Your task to perform on an android device: Search for seafood restaurants on Google Maps Image 0: 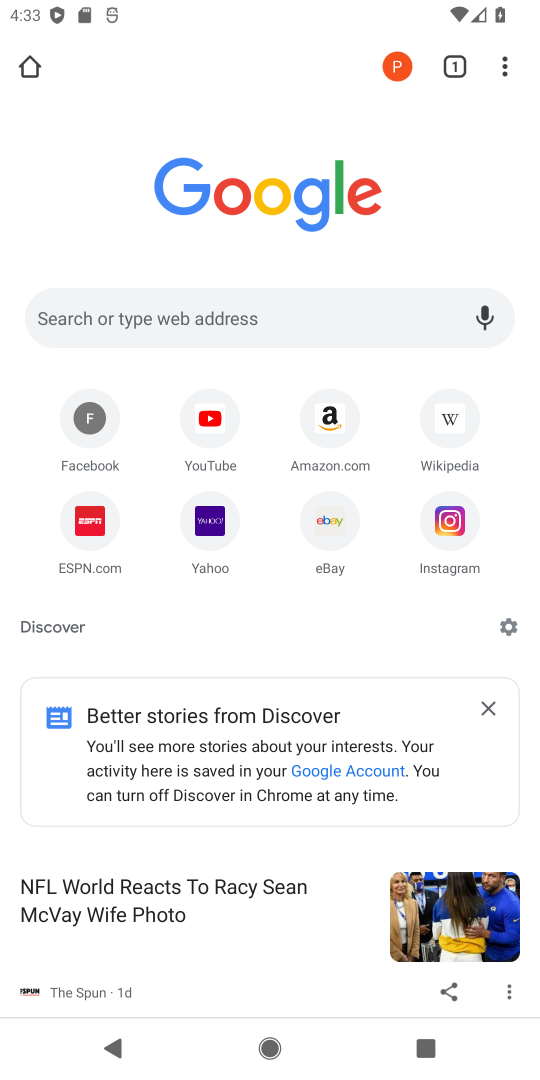
Step 0: press home button
Your task to perform on an android device: Search for seafood restaurants on Google Maps Image 1: 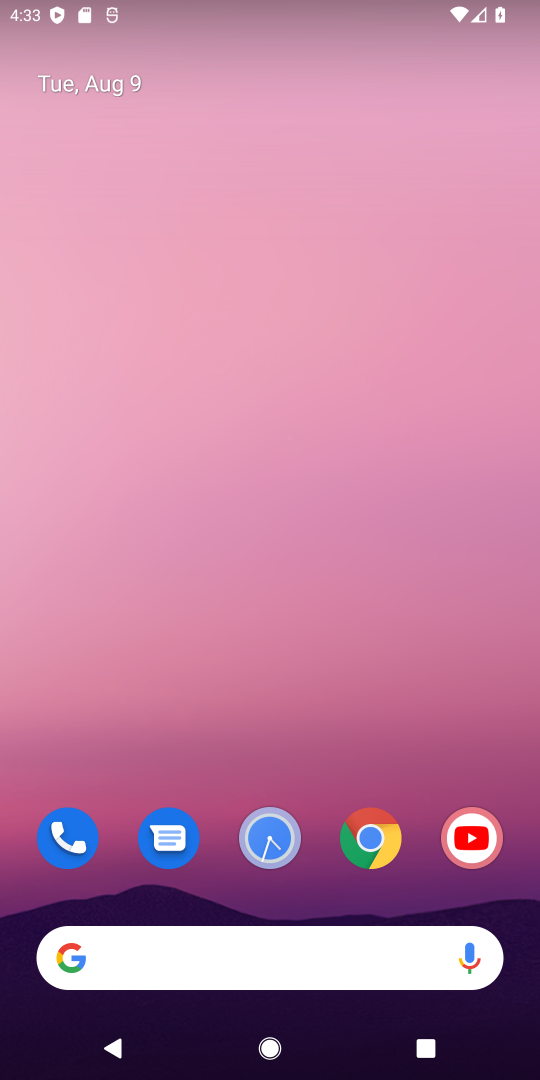
Step 1: drag from (300, 708) to (395, 5)
Your task to perform on an android device: Search for seafood restaurants on Google Maps Image 2: 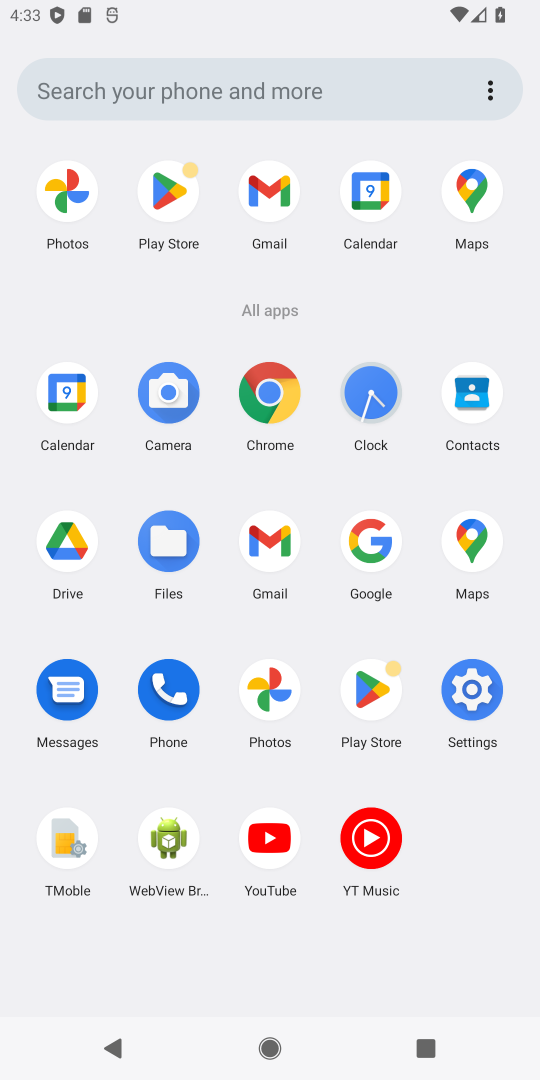
Step 2: click (476, 187)
Your task to perform on an android device: Search for seafood restaurants on Google Maps Image 3: 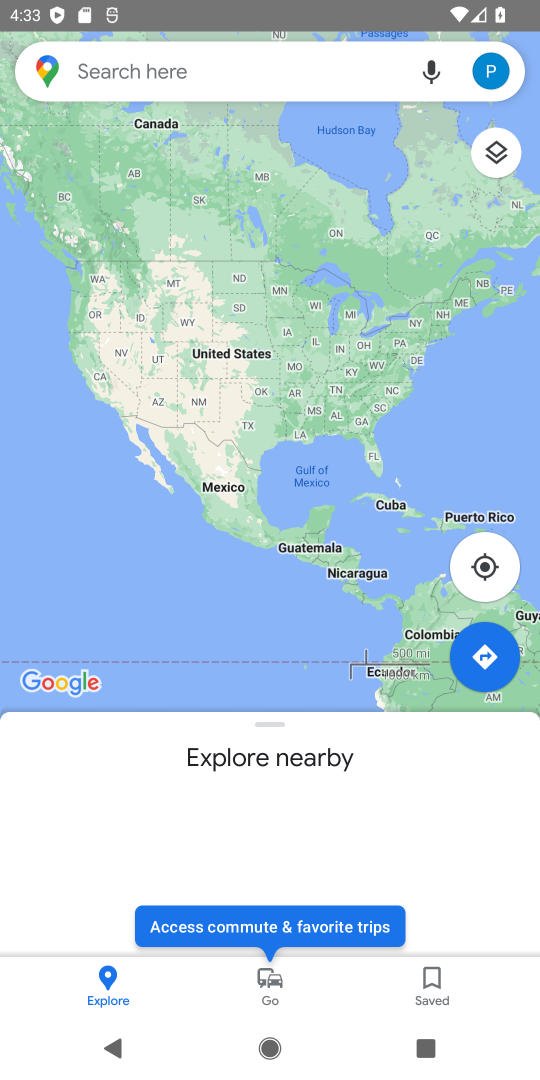
Step 3: click (201, 75)
Your task to perform on an android device: Search for seafood restaurants on Google Maps Image 4: 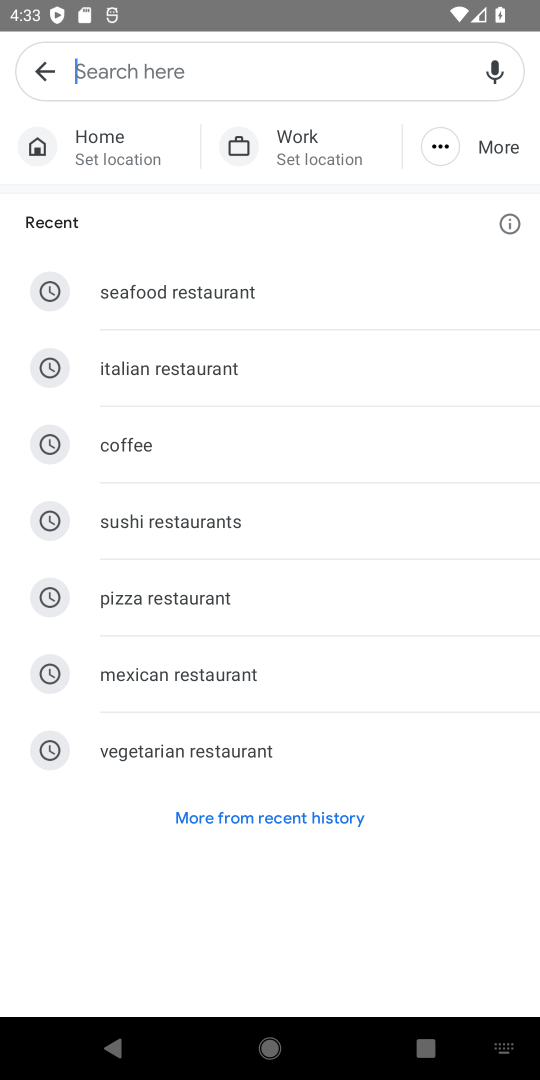
Step 4: type "seafood restaurants"
Your task to perform on an android device: Search for seafood restaurants on Google Maps Image 5: 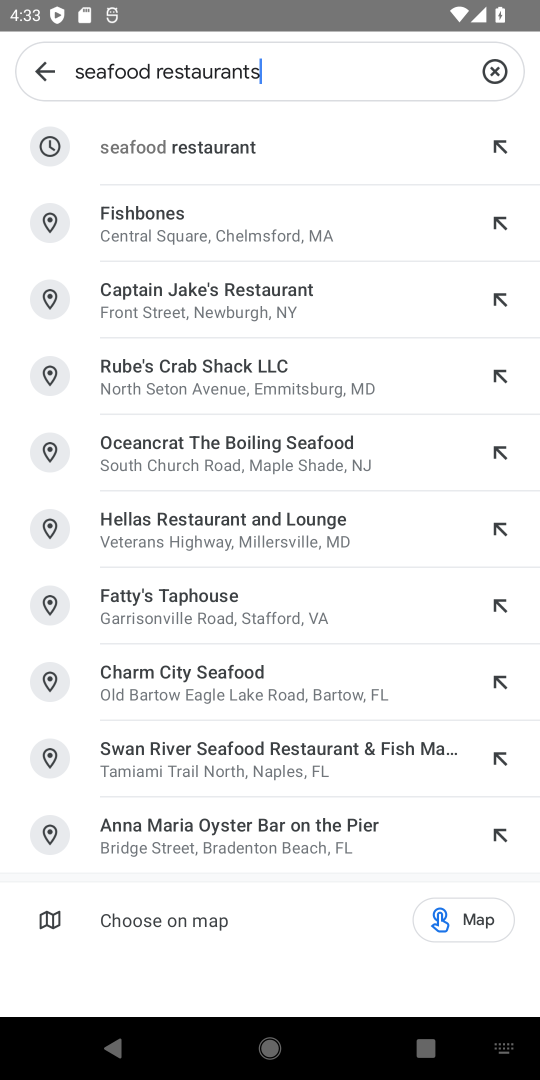
Step 5: click (250, 142)
Your task to perform on an android device: Search for seafood restaurants on Google Maps Image 6: 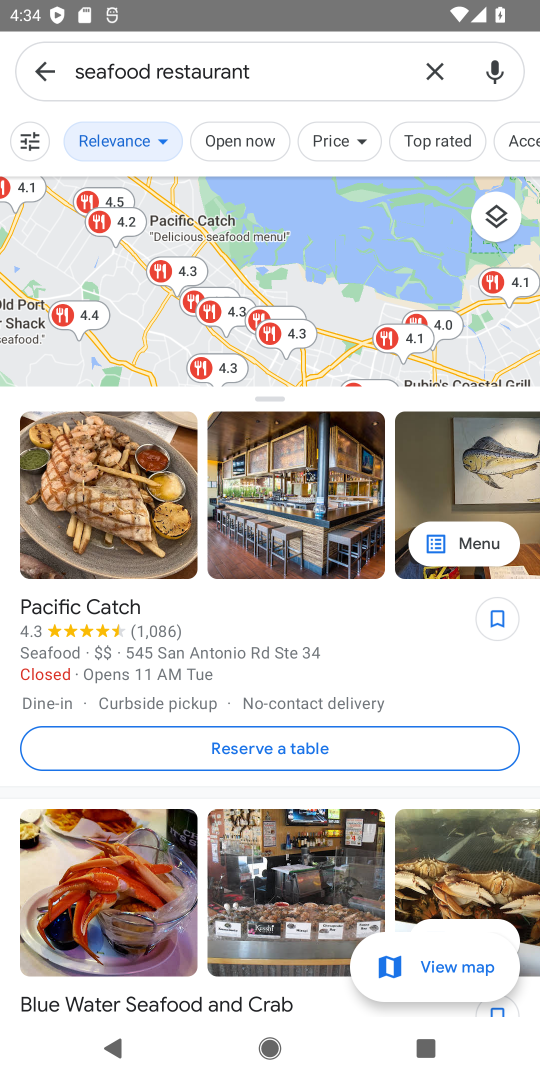
Step 6: task complete